Your task to perform on an android device: Go to location settings Image 0: 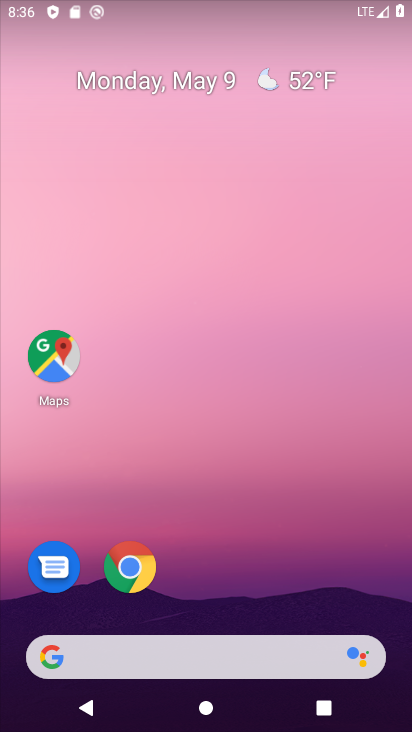
Step 0: drag from (250, 547) to (211, 43)
Your task to perform on an android device: Go to location settings Image 1: 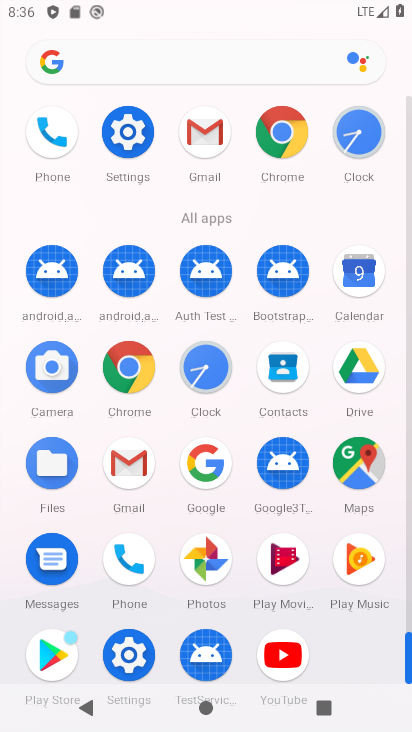
Step 1: click (129, 668)
Your task to perform on an android device: Go to location settings Image 2: 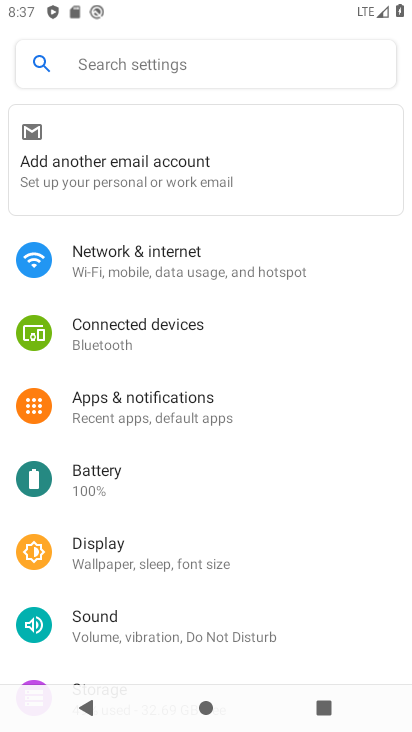
Step 2: drag from (200, 574) to (154, 257)
Your task to perform on an android device: Go to location settings Image 3: 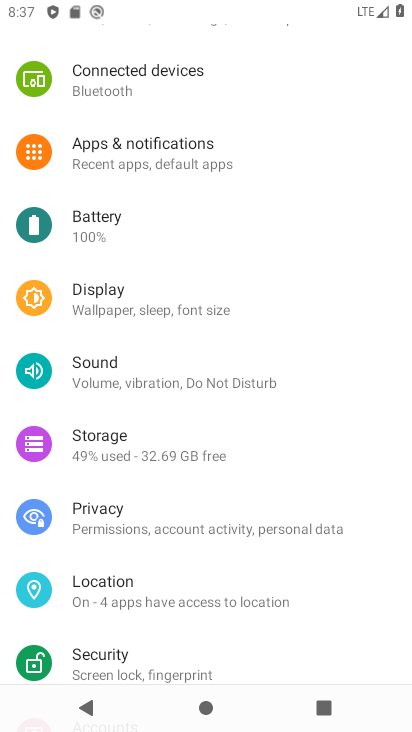
Step 3: click (137, 598)
Your task to perform on an android device: Go to location settings Image 4: 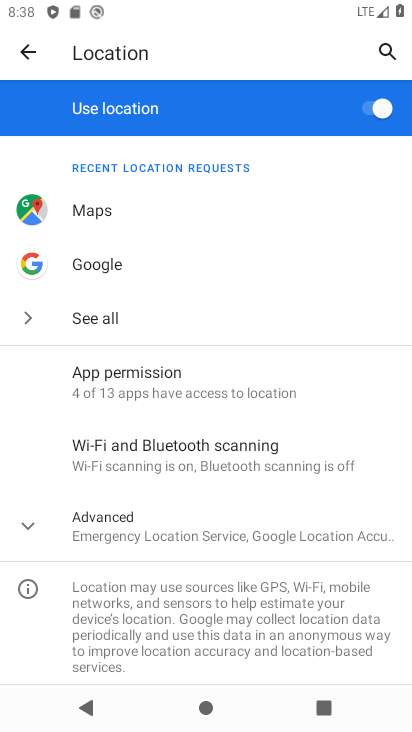
Step 4: task complete